Your task to perform on an android device: open wifi settings Image 0: 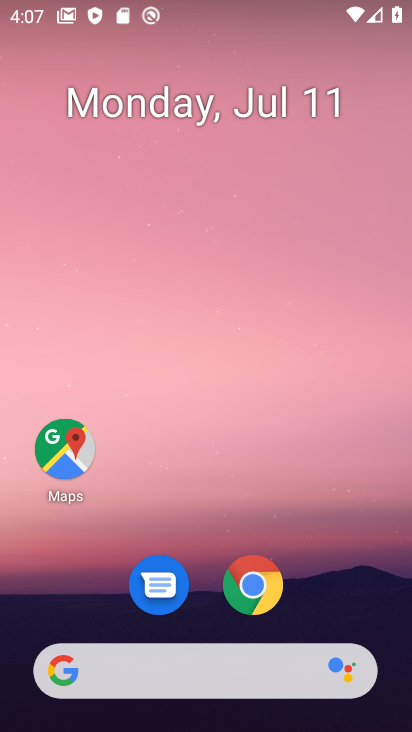
Step 0: drag from (302, 510) to (267, 3)
Your task to perform on an android device: open wifi settings Image 1: 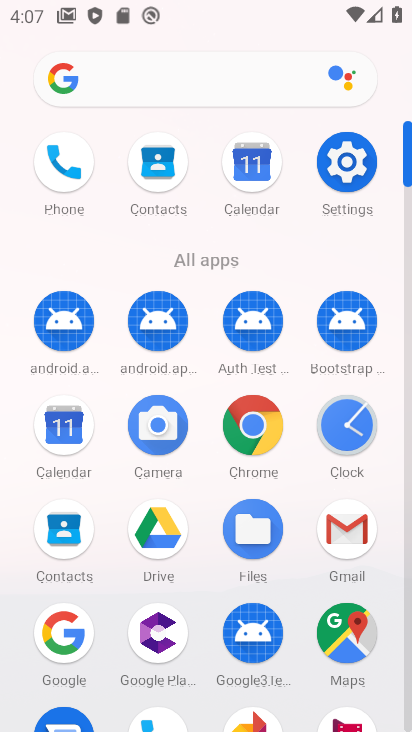
Step 1: click (343, 165)
Your task to perform on an android device: open wifi settings Image 2: 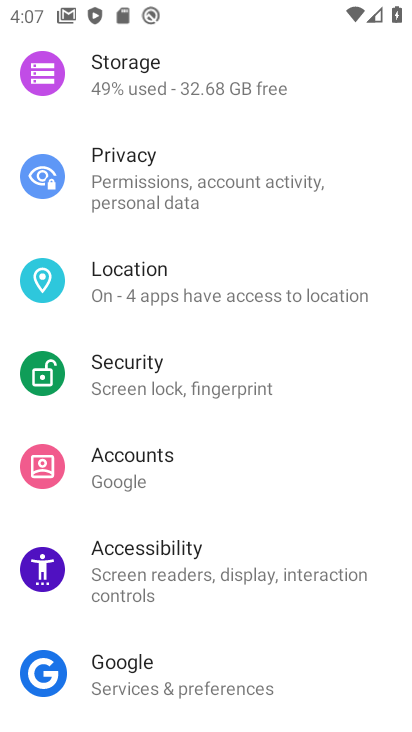
Step 2: drag from (212, 143) to (264, 678)
Your task to perform on an android device: open wifi settings Image 3: 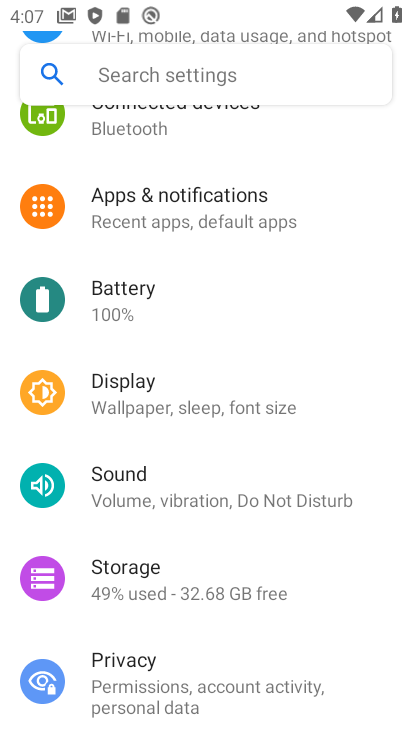
Step 3: drag from (217, 301) to (234, 607)
Your task to perform on an android device: open wifi settings Image 4: 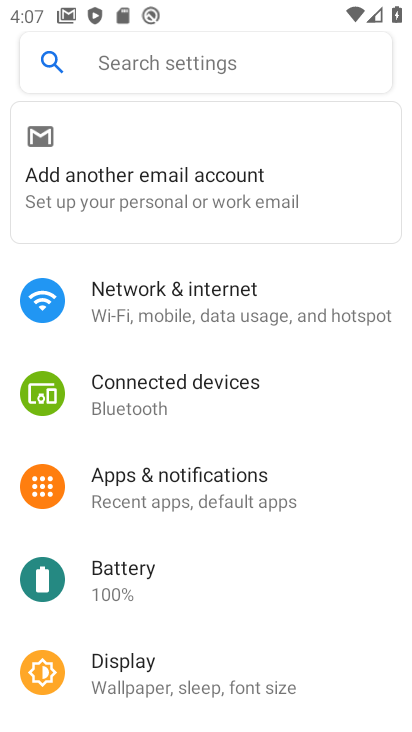
Step 4: click (188, 299)
Your task to perform on an android device: open wifi settings Image 5: 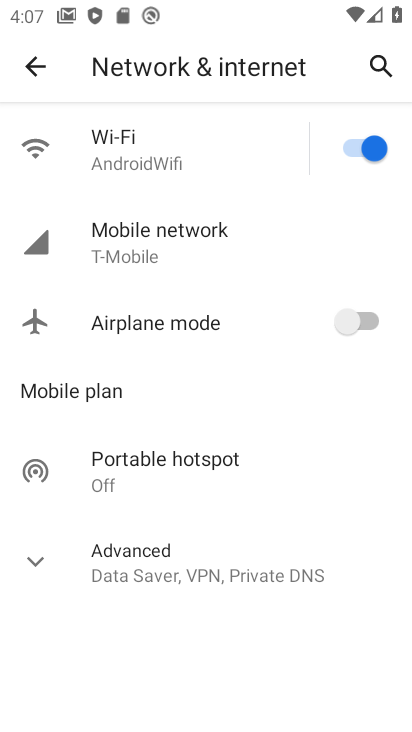
Step 5: click (145, 155)
Your task to perform on an android device: open wifi settings Image 6: 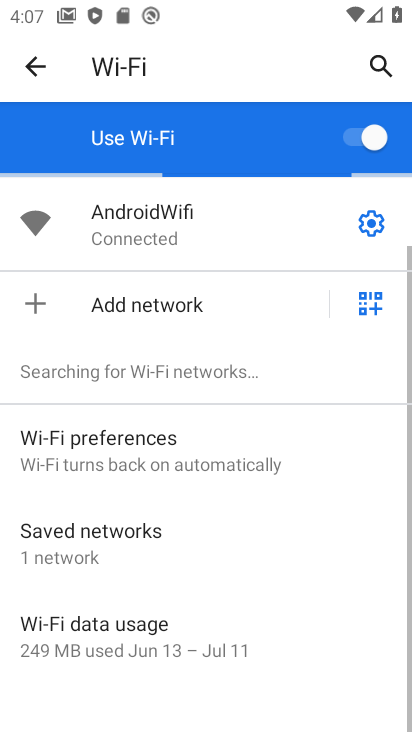
Step 6: task complete